Your task to perform on an android device: toggle sleep mode Image 0: 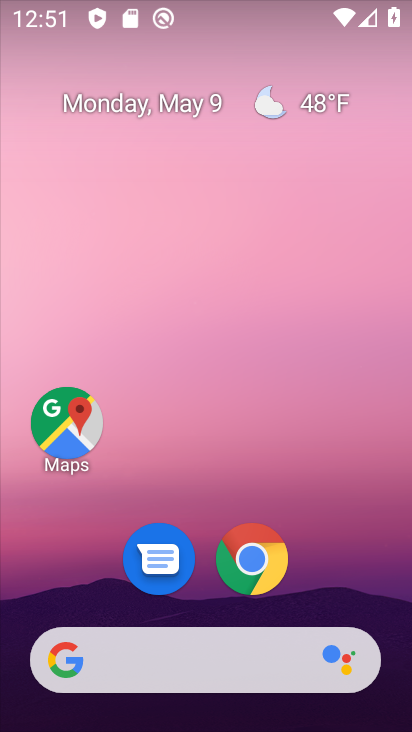
Step 0: click (317, 100)
Your task to perform on an android device: toggle sleep mode Image 1: 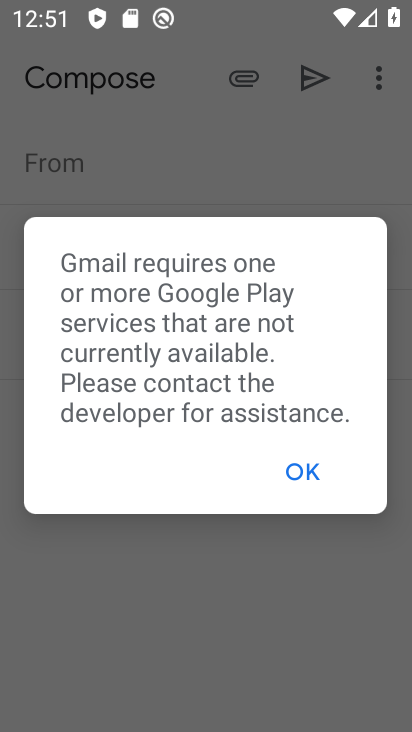
Step 1: drag from (205, 592) to (264, 163)
Your task to perform on an android device: toggle sleep mode Image 2: 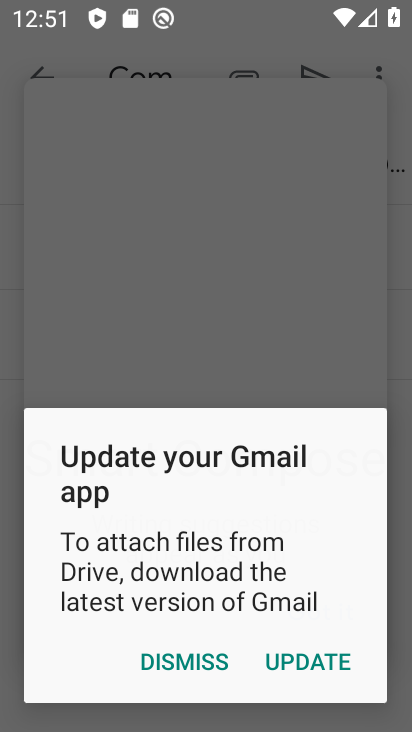
Step 2: click (304, 610)
Your task to perform on an android device: toggle sleep mode Image 3: 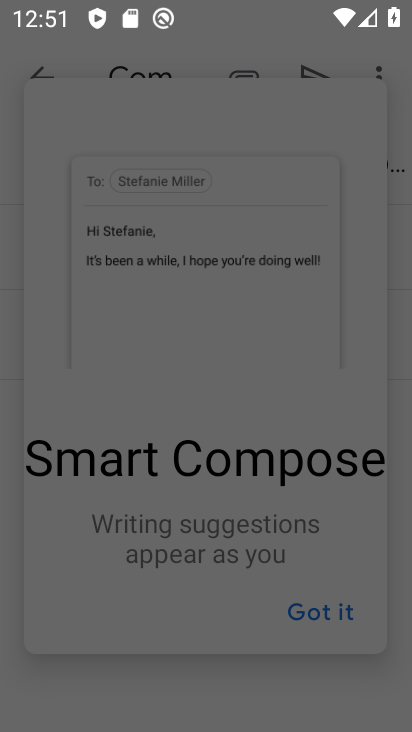
Step 3: click (319, 611)
Your task to perform on an android device: toggle sleep mode Image 4: 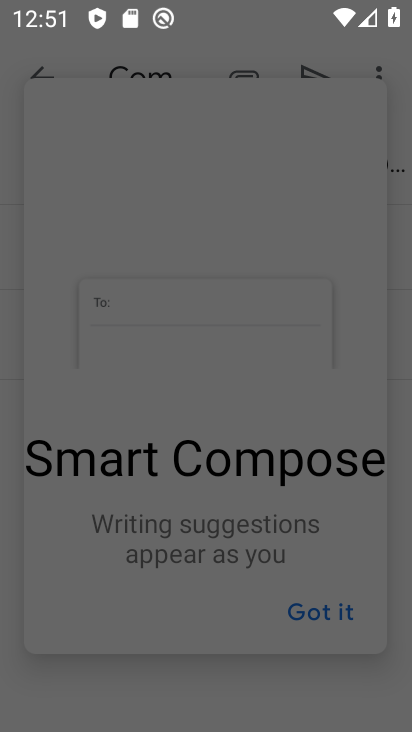
Step 4: click (319, 611)
Your task to perform on an android device: toggle sleep mode Image 5: 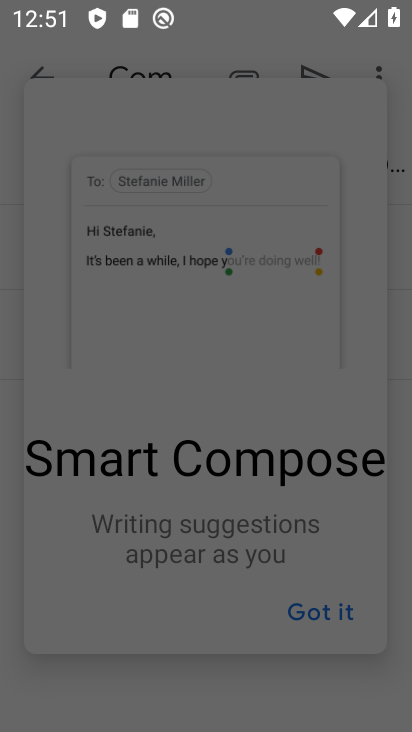
Step 5: press home button
Your task to perform on an android device: toggle sleep mode Image 6: 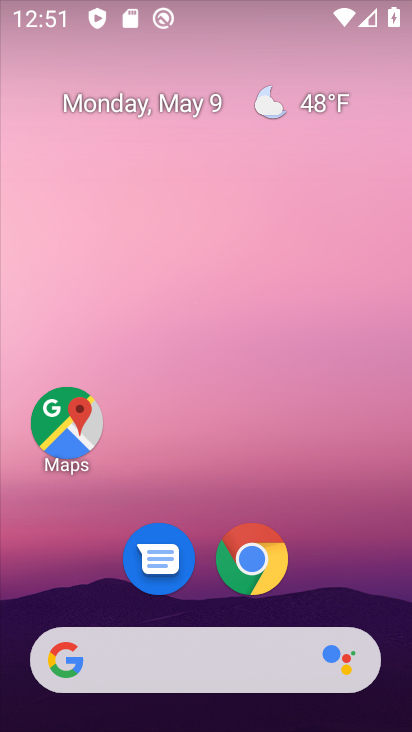
Step 6: drag from (267, 534) to (343, 182)
Your task to perform on an android device: toggle sleep mode Image 7: 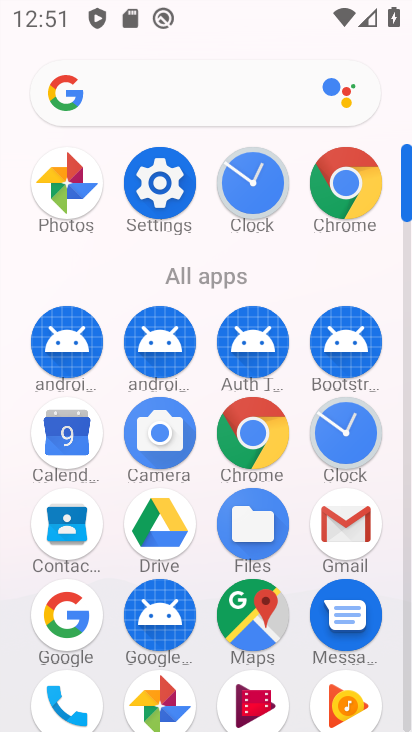
Step 7: click (151, 152)
Your task to perform on an android device: toggle sleep mode Image 8: 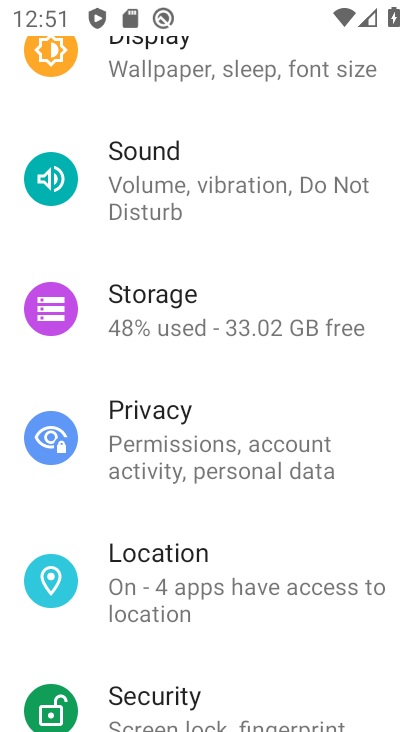
Step 8: drag from (266, 656) to (331, 275)
Your task to perform on an android device: toggle sleep mode Image 9: 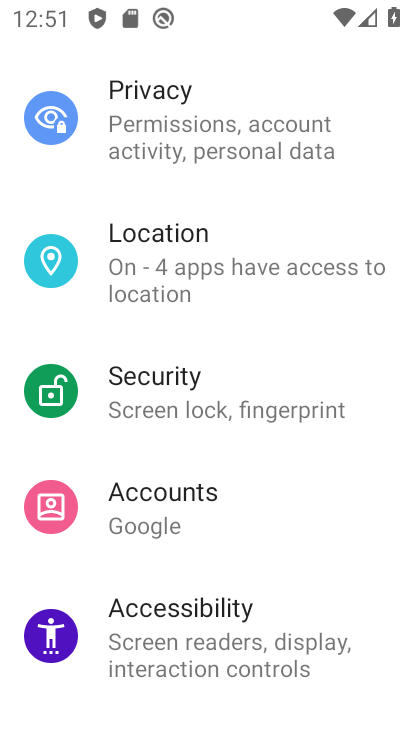
Step 9: drag from (230, 631) to (226, 302)
Your task to perform on an android device: toggle sleep mode Image 10: 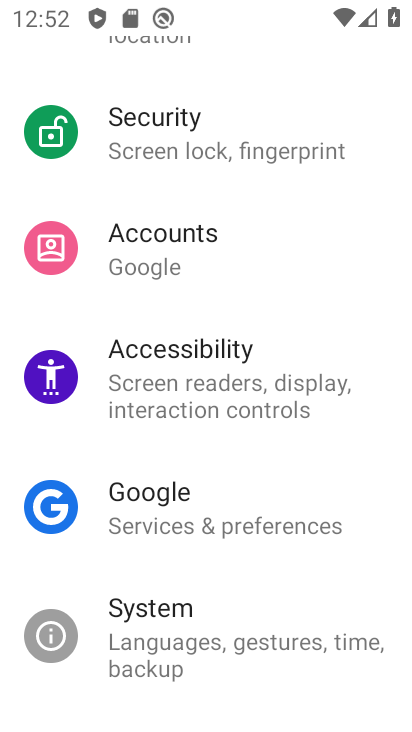
Step 10: click (202, 357)
Your task to perform on an android device: toggle sleep mode Image 11: 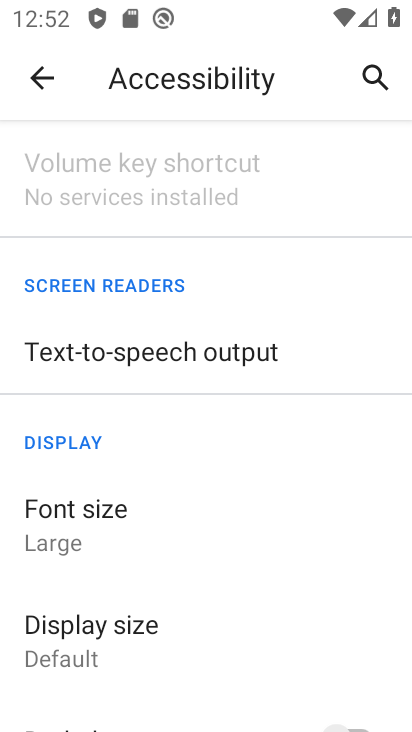
Step 11: click (43, 69)
Your task to perform on an android device: toggle sleep mode Image 12: 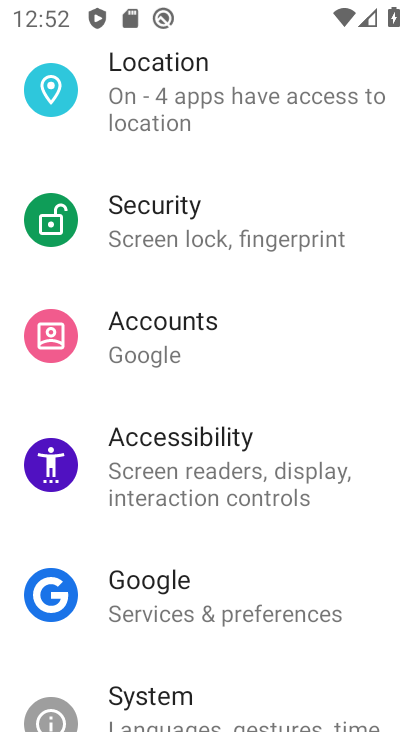
Step 12: click (198, 506)
Your task to perform on an android device: toggle sleep mode Image 13: 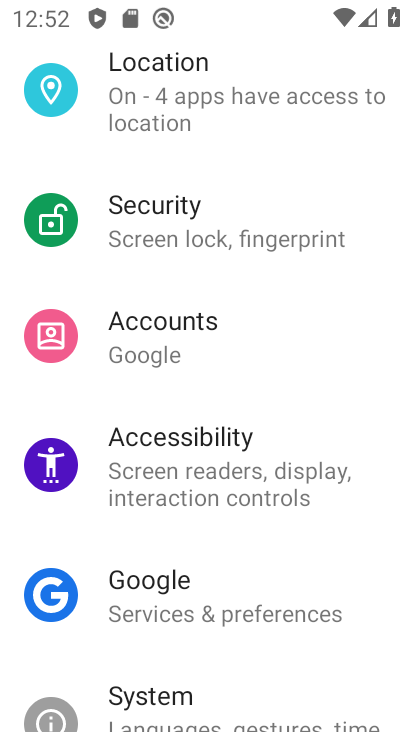
Step 13: drag from (251, 554) to (355, 725)
Your task to perform on an android device: toggle sleep mode Image 14: 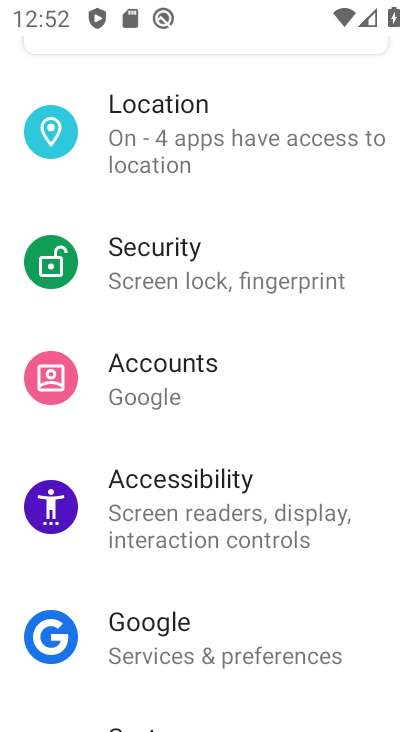
Step 14: drag from (213, 241) to (312, 688)
Your task to perform on an android device: toggle sleep mode Image 15: 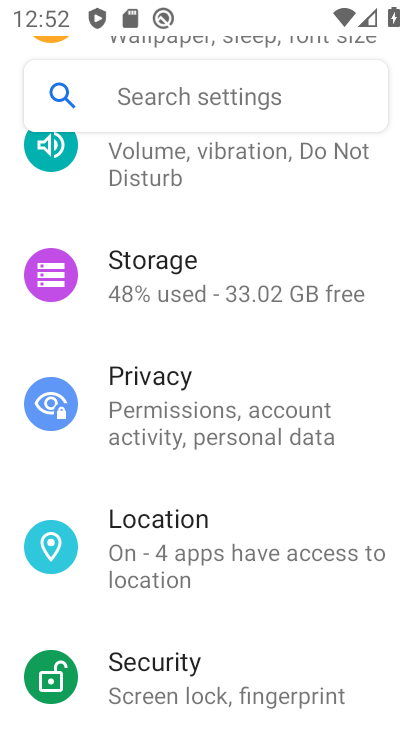
Step 15: drag from (209, 470) to (268, 727)
Your task to perform on an android device: toggle sleep mode Image 16: 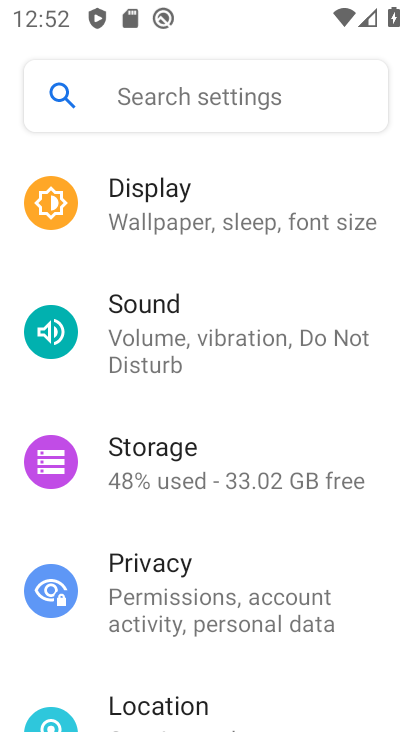
Step 16: drag from (236, 387) to (283, 717)
Your task to perform on an android device: toggle sleep mode Image 17: 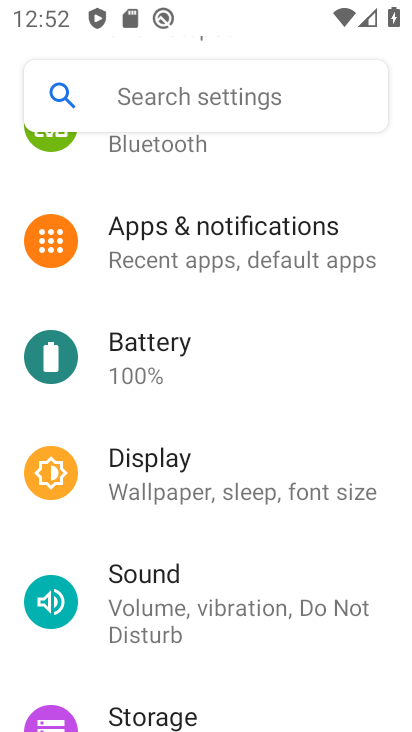
Step 17: click (251, 262)
Your task to perform on an android device: toggle sleep mode Image 18: 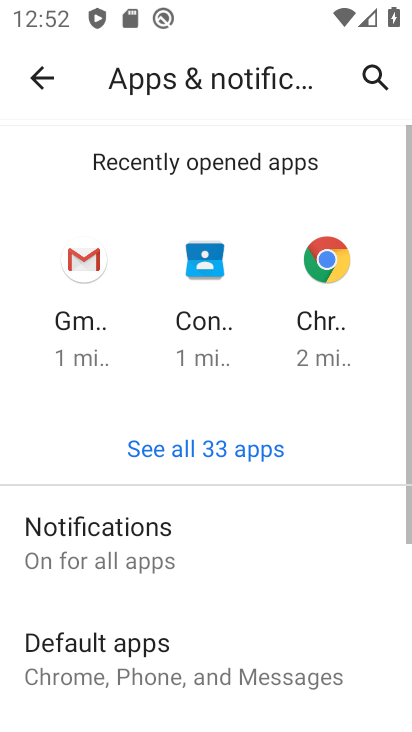
Step 18: click (150, 542)
Your task to perform on an android device: toggle sleep mode Image 19: 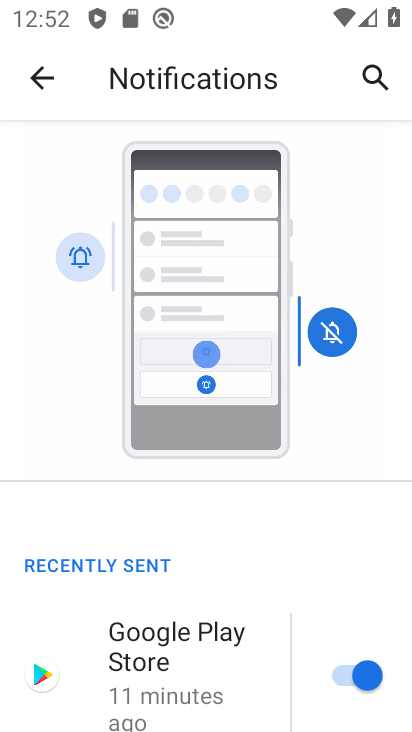
Step 19: drag from (226, 649) to (225, 181)
Your task to perform on an android device: toggle sleep mode Image 20: 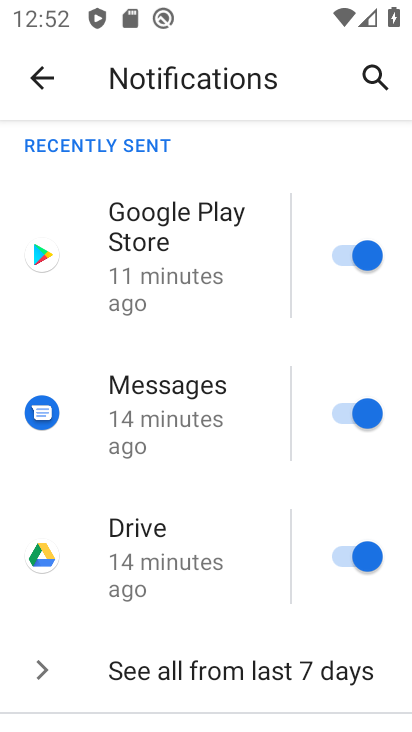
Step 20: drag from (206, 575) to (208, 328)
Your task to perform on an android device: toggle sleep mode Image 21: 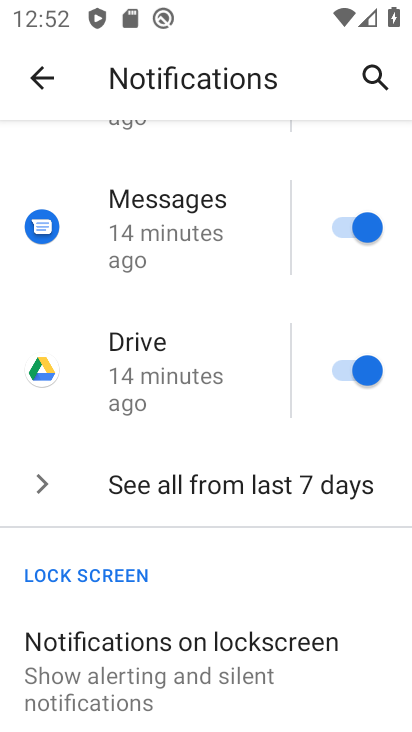
Step 21: drag from (201, 662) to (201, 410)
Your task to perform on an android device: toggle sleep mode Image 22: 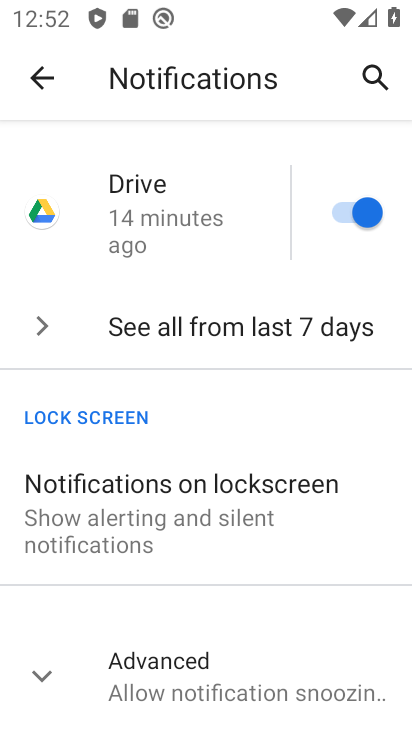
Step 22: click (200, 420)
Your task to perform on an android device: toggle sleep mode Image 23: 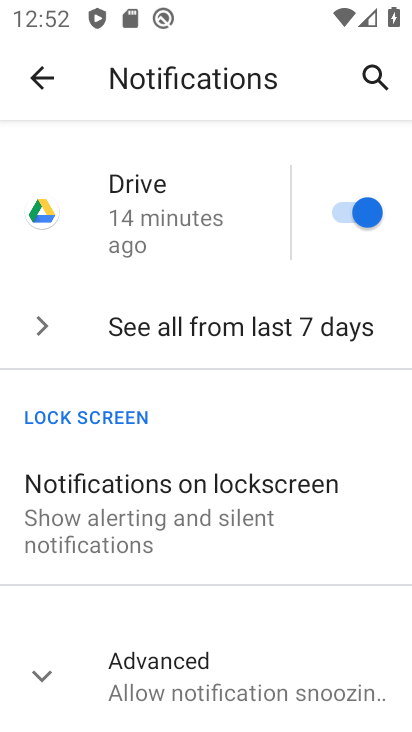
Step 23: drag from (188, 295) to (315, 724)
Your task to perform on an android device: toggle sleep mode Image 24: 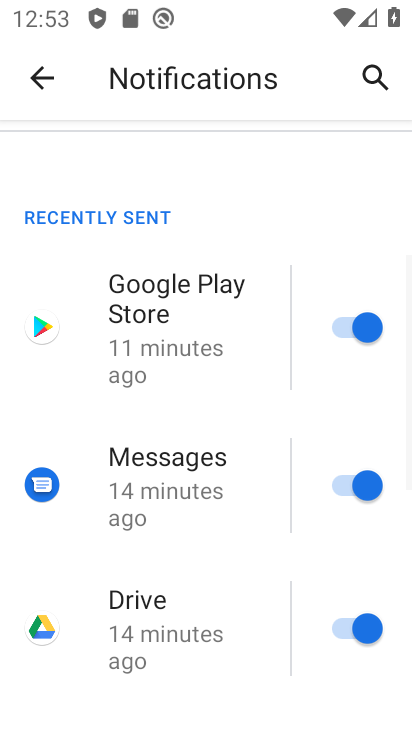
Step 24: click (34, 66)
Your task to perform on an android device: toggle sleep mode Image 25: 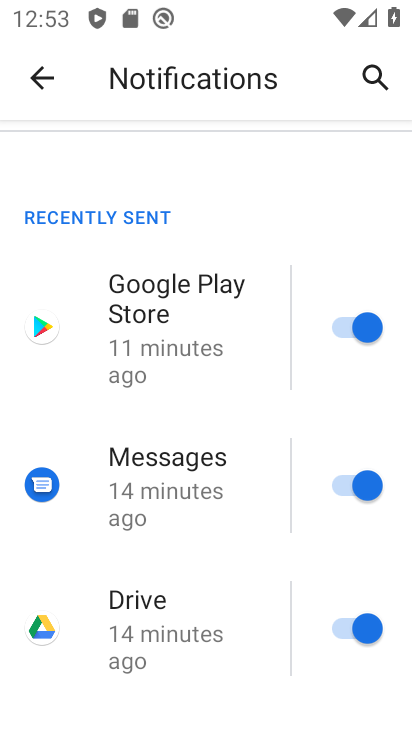
Step 25: task complete